Your task to perform on an android device: toggle sleep mode Image 0: 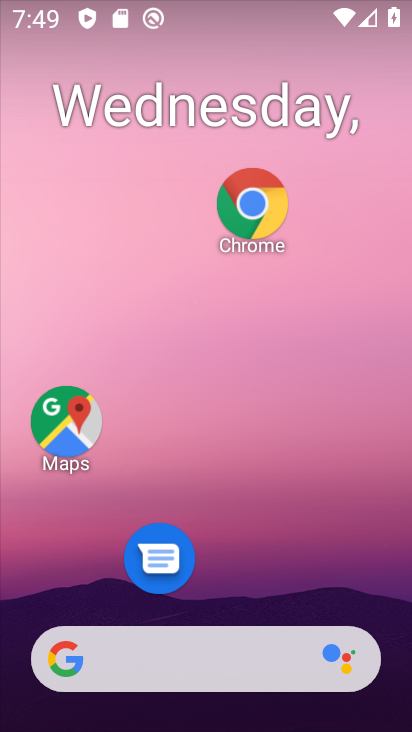
Step 0: drag from (212, 581) to (206, 119)
Your task to perform on an android device: toggle sleep mode Image 1: 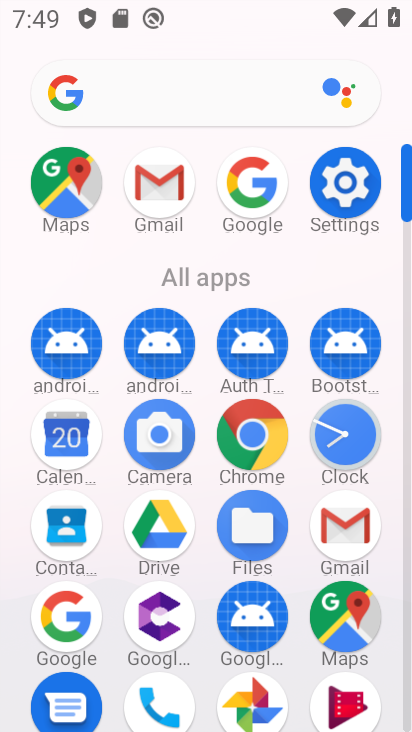
Step 1: click (343, 181)
Your task to perform on an android device: toggle sleep mode Image 2: 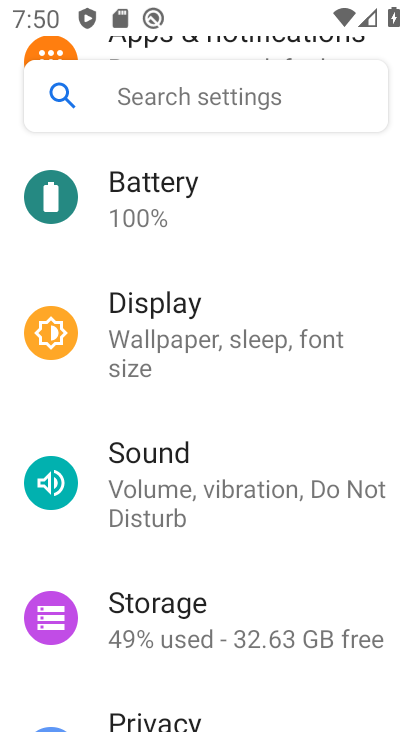
Step 2: click (189, 330)
Your task to perform on an android device: toggle sleep mode Image 3: 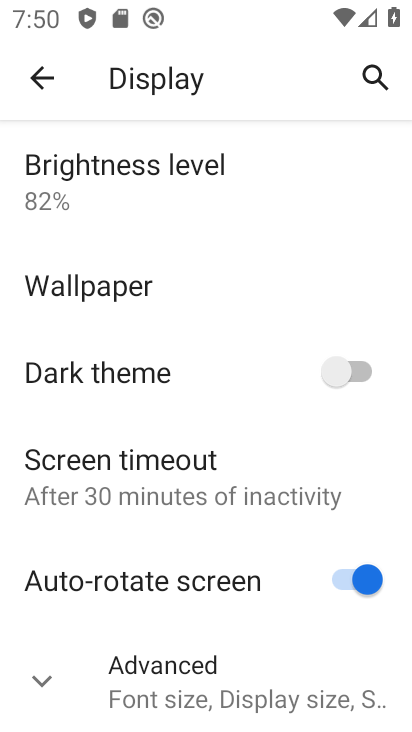
Step 3: task complete